Your task to perform on an android device: stop showing notifications on the lock screen Image 0: 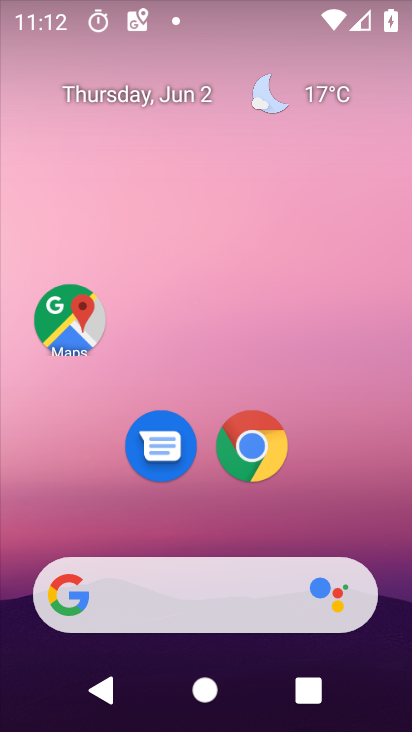
Step 0: drag from (379, 524) to (375, 231)
Your task to perform on an android device: stop showing notifications on the lock screen Image 1: 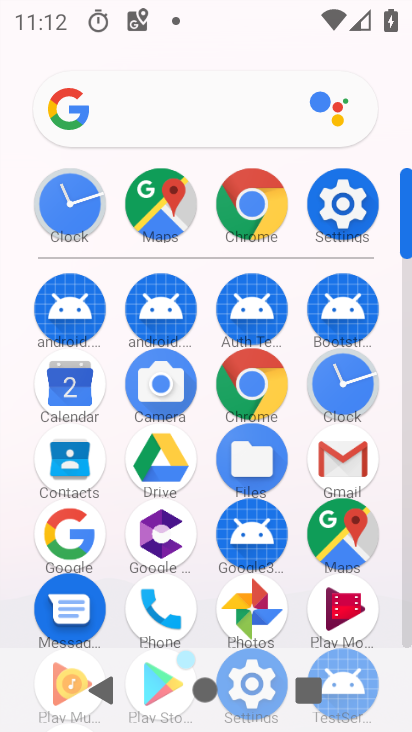
Step 1: click (349, 226)
Your task to perform on an android device: stop showing notifications on the lock screen Image 2: 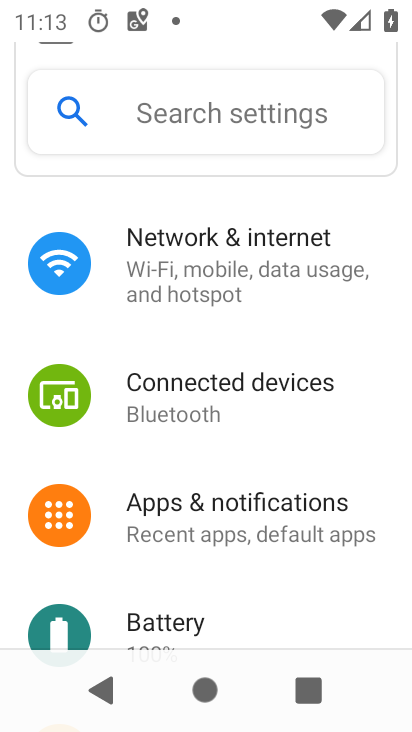
Step 2: drag from (360, 317) to (352, 486)
Your task to perform on an android device: stop showing notifications on the lock screen Image 3: 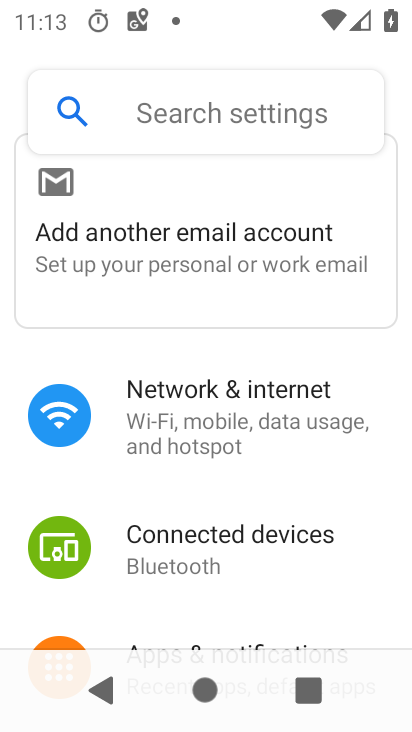
Step 3: drag from (367, 358) to (370, 512)
Your task to perform on an android device: stop showing notifications on the lock screen Image 4: 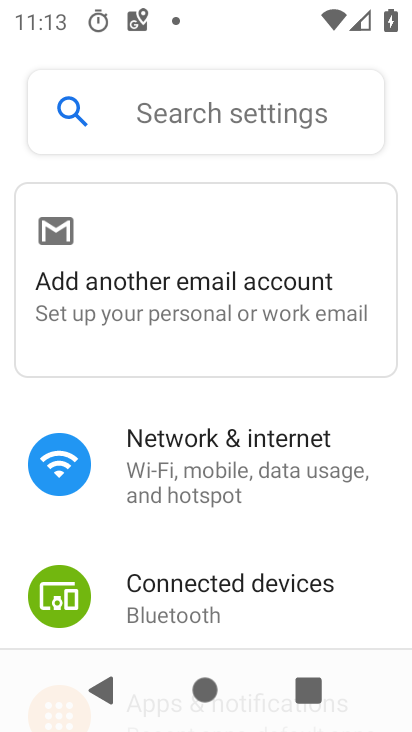
Step 4: drag from (362, 533) to (377, 450)
Your task to perform on an android device: stop showing notifications on the lock screen Image 5: 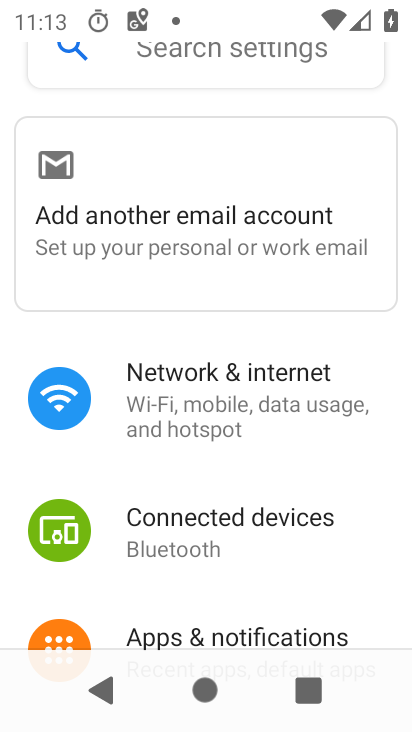
Step 5: drag from (373, 520) to (379, 426)
Your task to perform on an android device: stop showing notifications on the lock screen Image 6: 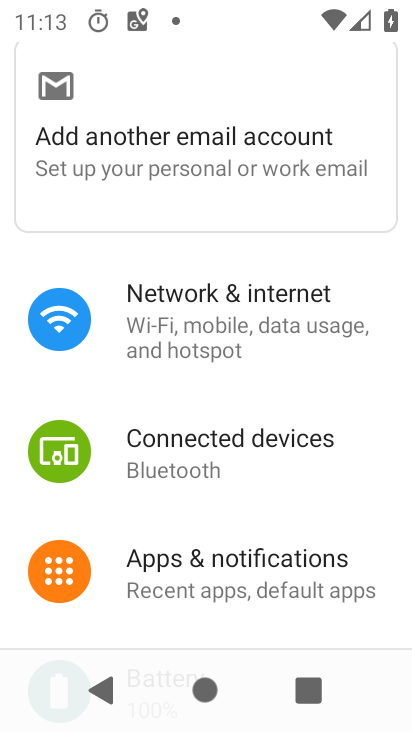
Step 6: drag from (368, 520) to (362, 350)
Your task to perform on an android device: stop showing notifications on the lock screen Image 7: 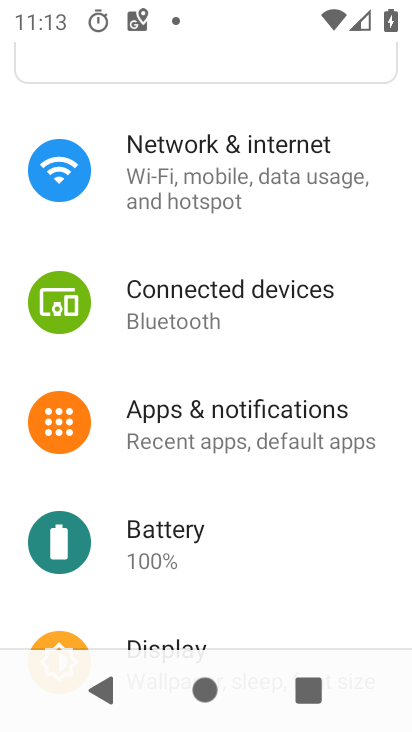
Step 7: drag from (377, 511) to (383, 388)
Your task to perform on an android device: stop showing notifications on the lock screen Image 8: 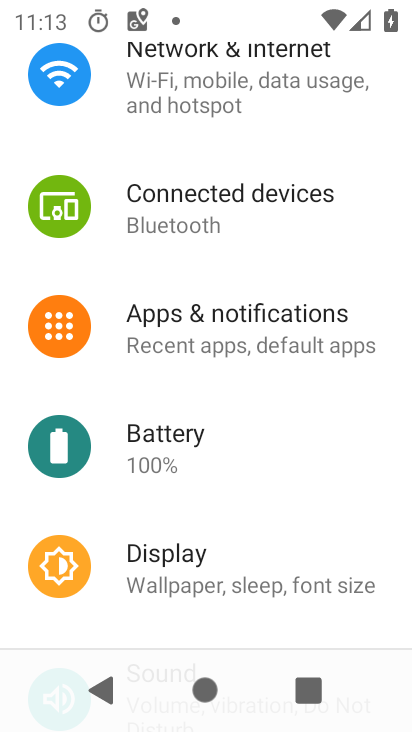
Step 8: click (321, 349)
Your task to perform on an android device: stop showing notifications on the lock screen Image 9: 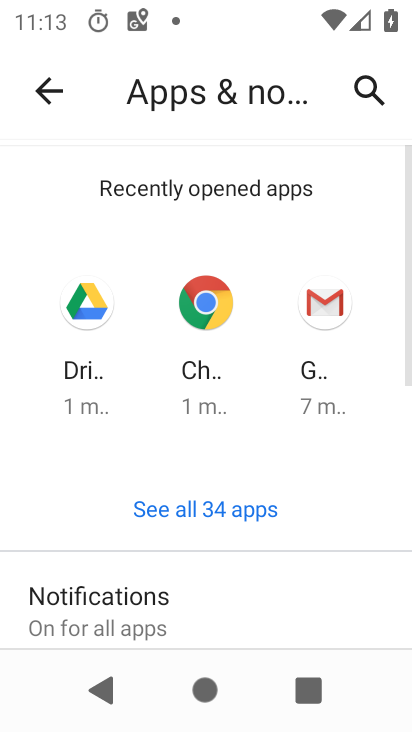
Step 9: drag from (310, 495) to (316, 398)
Your task to perform on an android device: stop showing notifications on the lock screen Image 10: 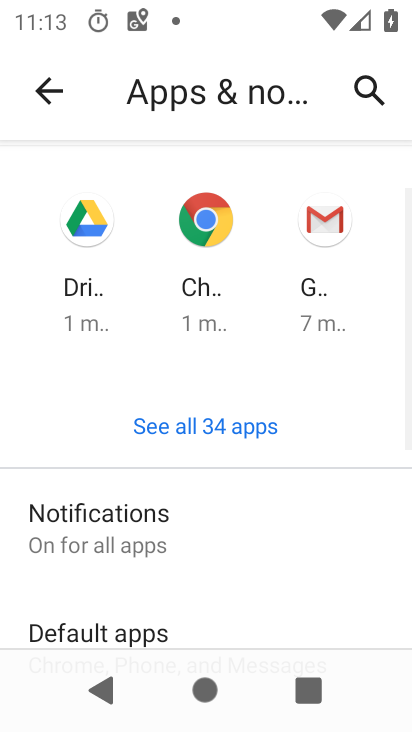
Step 10: drag from (322, 495) to (327, 407)
Your task to perform on an android device: stop showing notifications on the lock screen Image 11: 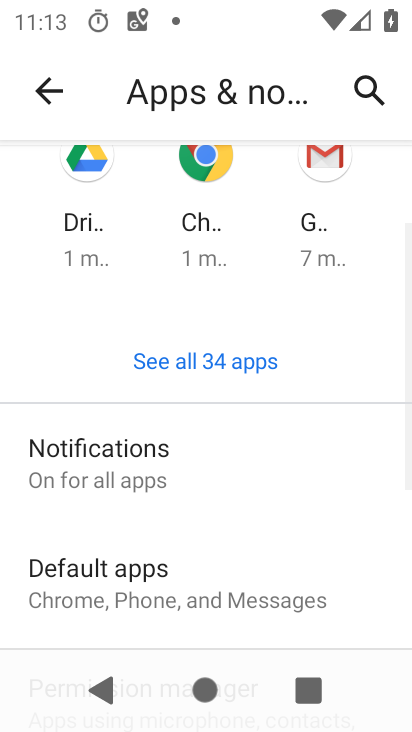
Step 11: drag from (333, 491) to (342, 381)
Your task to perform on an android device: stop showing notifications on the lock screen Image 12: 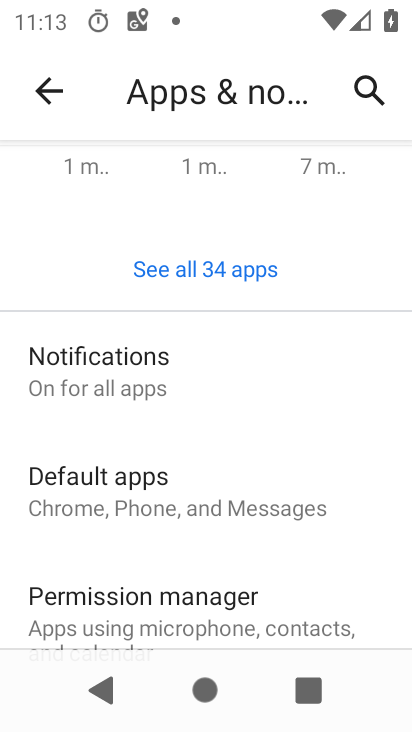
Step 12: drag from (352, 531) to (358, 414)
Your task to perform on an android device: stop showing notifications on the lock screen Image 13: 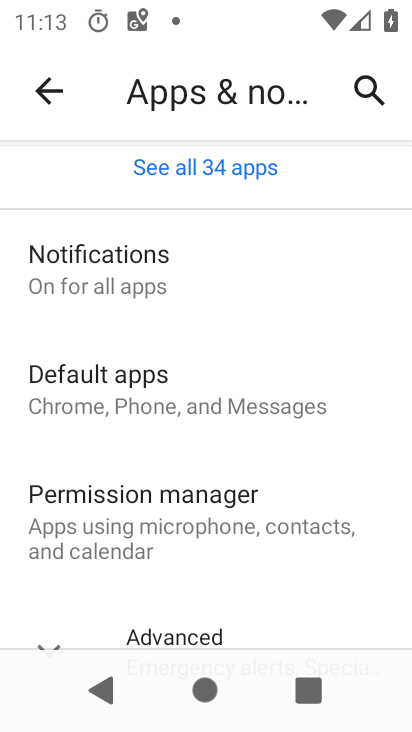
Step 13: click (166, 280)
Your task to perform on an android device: stop showing notifications on the lock screen Image 14: 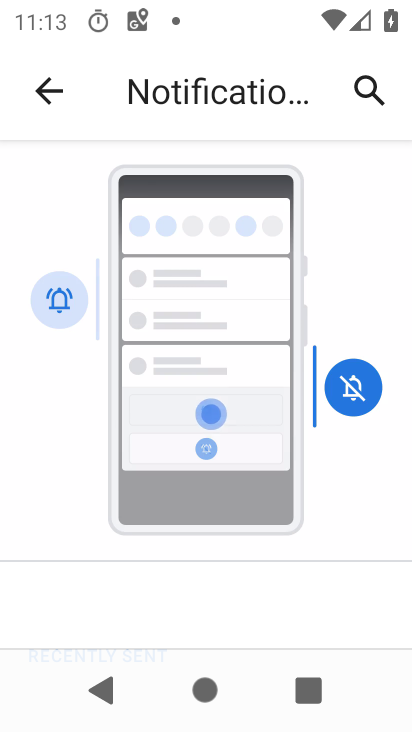
Step 14: drag from (359, 563) to (362, 391)
Your task to perform on an android device: stop showing notifications on the lock screen Image 15: 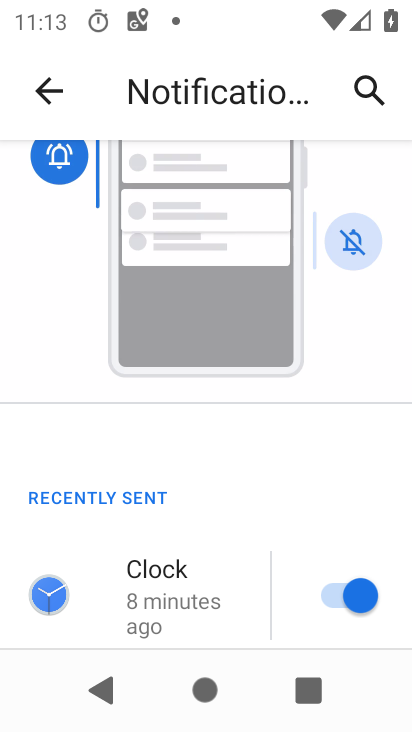
Step 15: drag from (287, 545) to (286, 385)
Your task to perform on an android device: stop showing notifications on the lock screen Image 16: 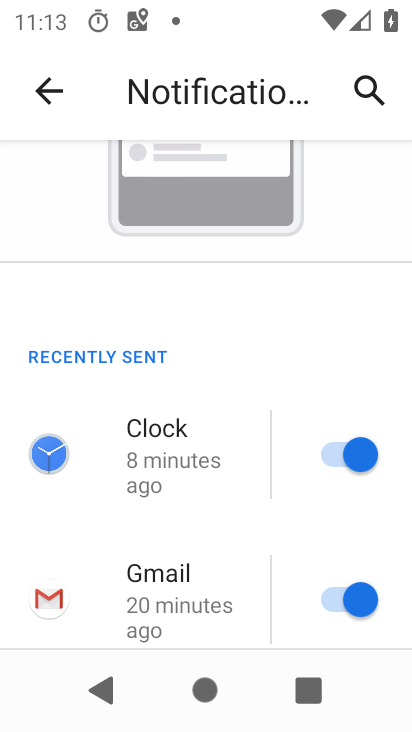
Step 16: drag from (238, 538) to (239, 390)
Your task to perform on an android device: stop showing notifications on the lock screen Image 17: 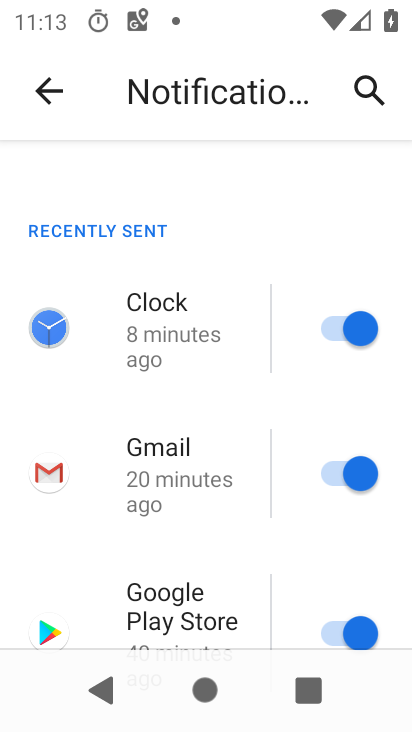
Step 17: drag from (243, 522) to (232, 388)
Your task to perform on an android device: stop showing notifications on the lock screen Image 18: 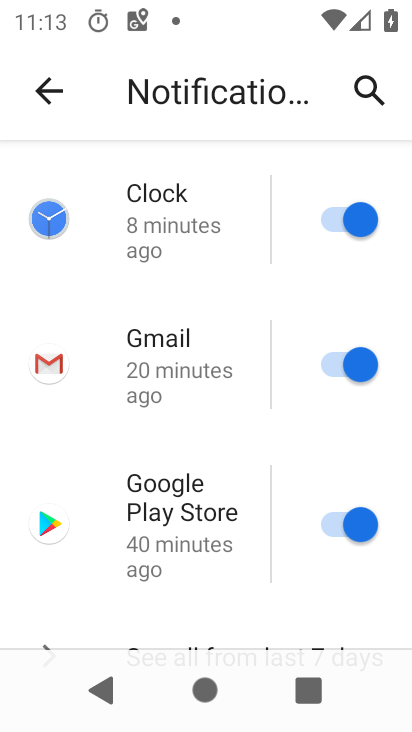
Step 18: drag from (232, 578) to (247, 372)
Your task to perform on an android device: stop showing notifications on the lock screen Image 19: 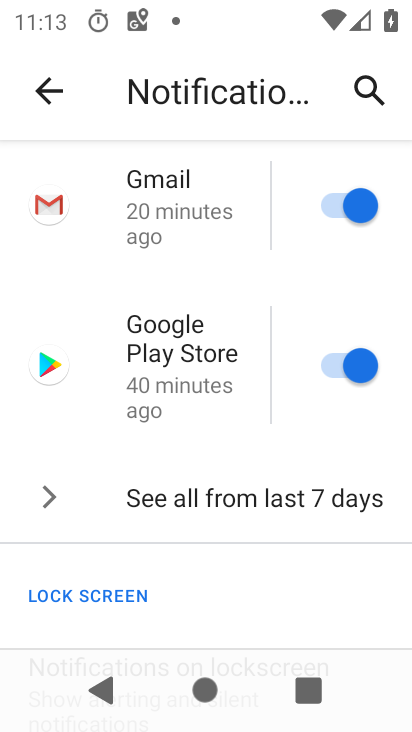
Step 19: drag from (216, 561) to (226, 383)
Your task to perform on an android device: stop showing notifications on the lock screen Image 20: 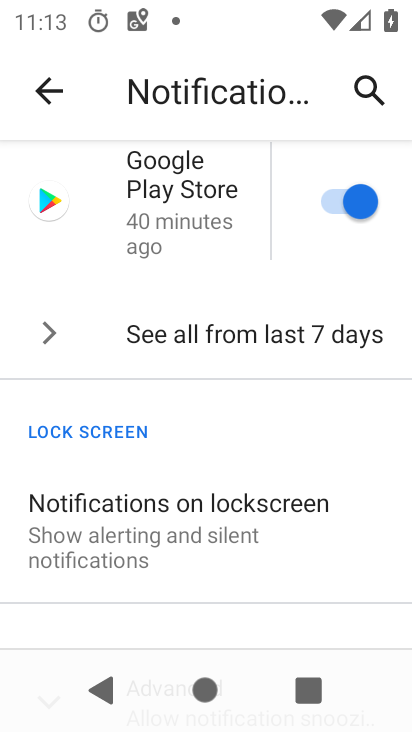
Step 20: click (196, 535)
Your task to perform on an android device: stop showing notifications on the lock screen Image 21: 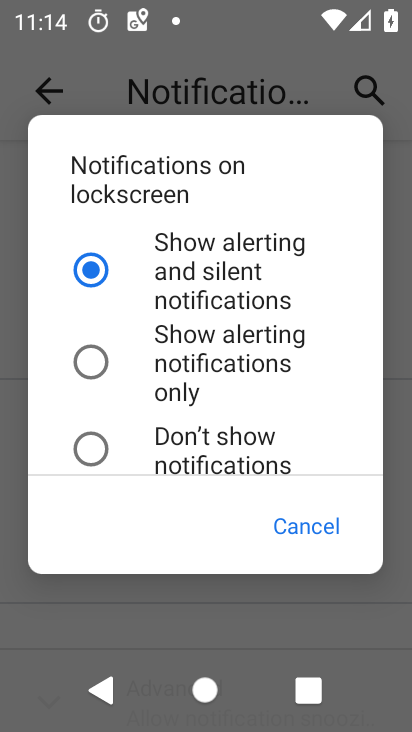
Step 21: click (81, 453)
Your task to perform on an android device: stop showing notifications on the lock screen Image 22: 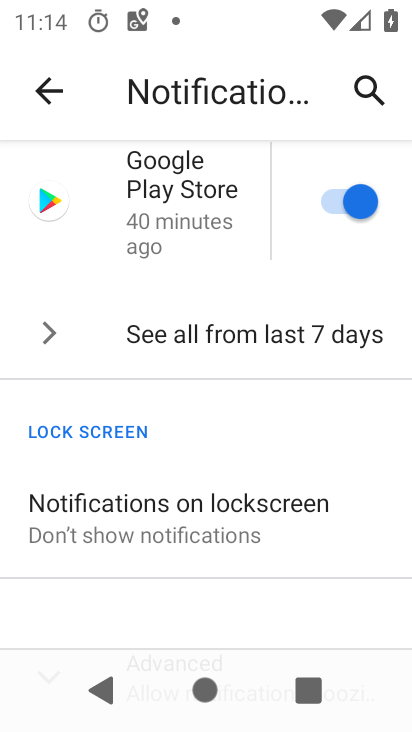
Step 22: task complete